Your task to perform on an android device: Open Yahoo.com Image 0: 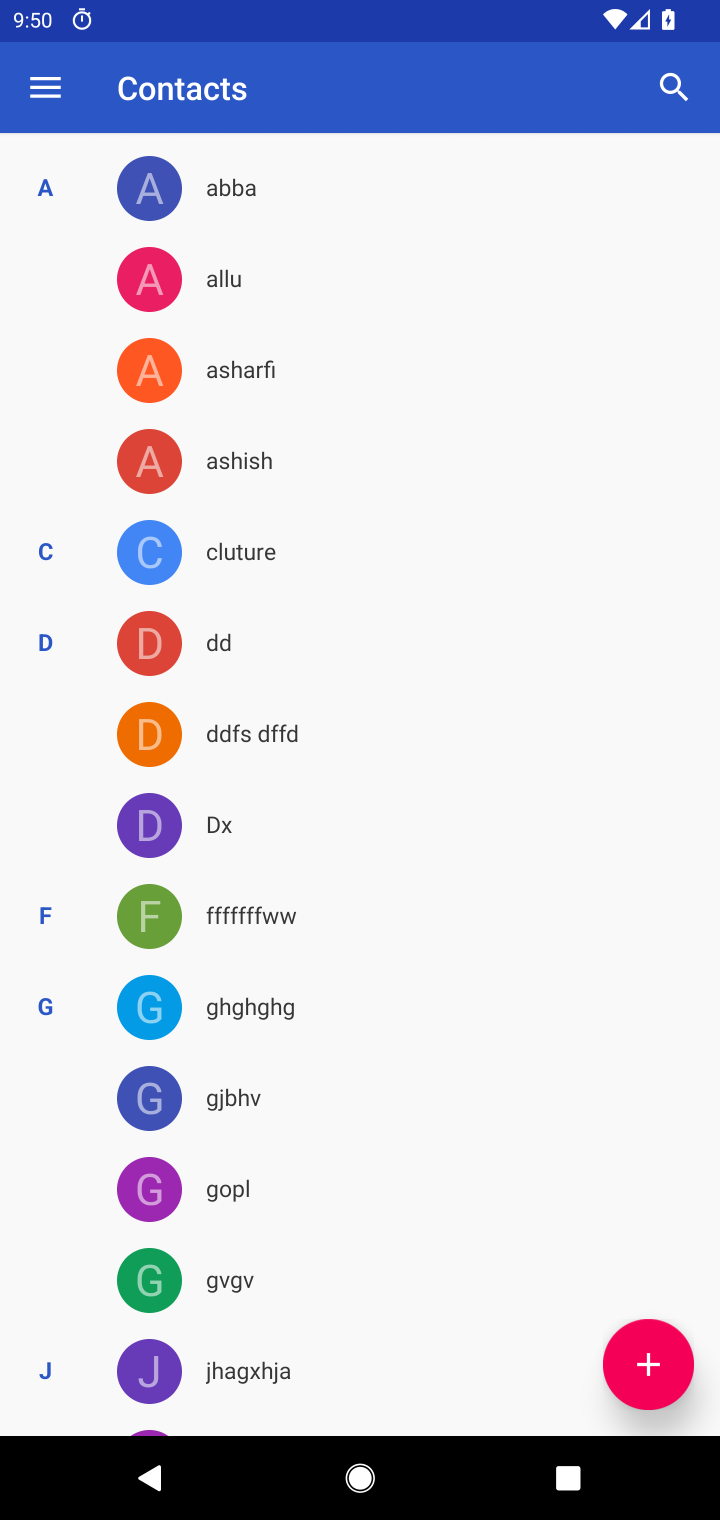
Step 0: press home button
Your task to perform on an android device: Open Yahoo.com Image 1: 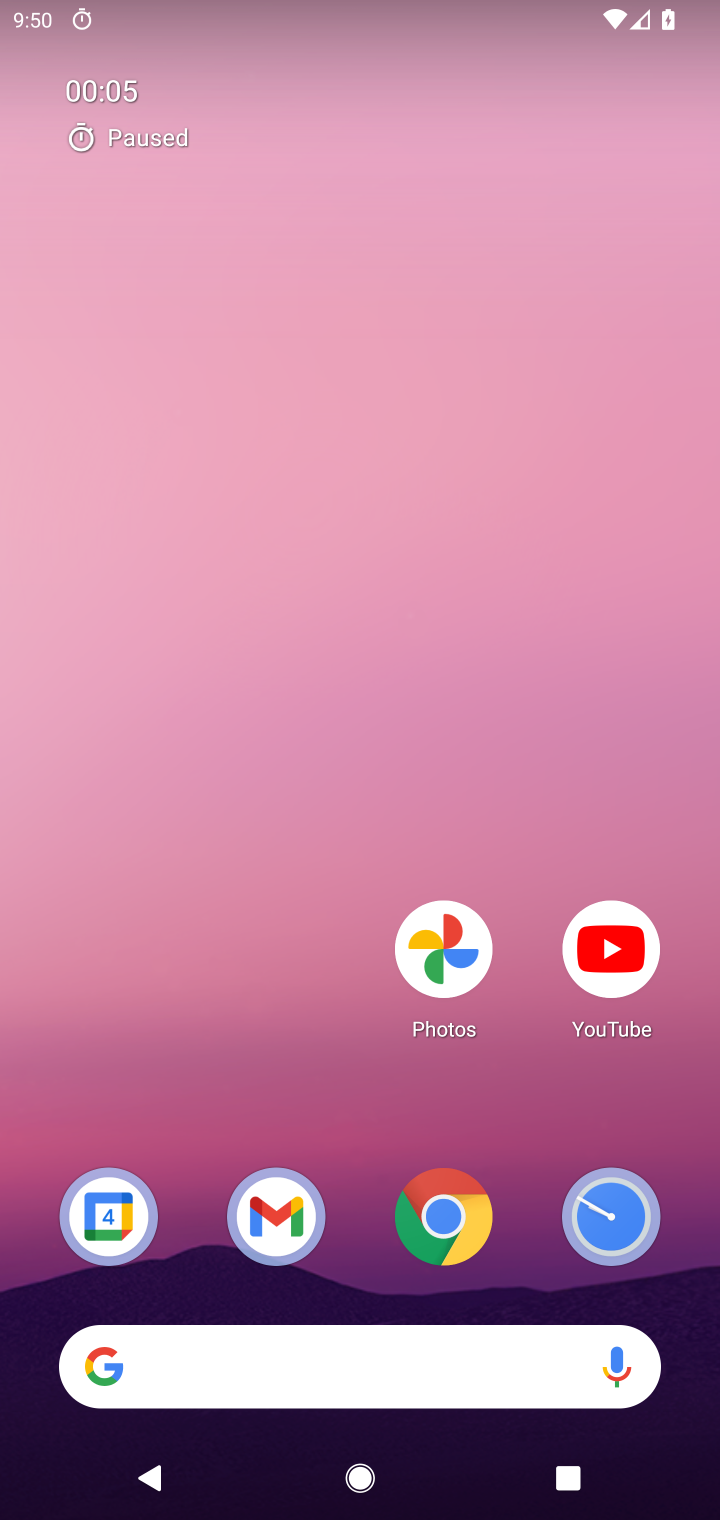
Step 1: drag from (354, 876) to (330, 126)
Your task to perform on an android device: Open Yahoo.com Image 2: 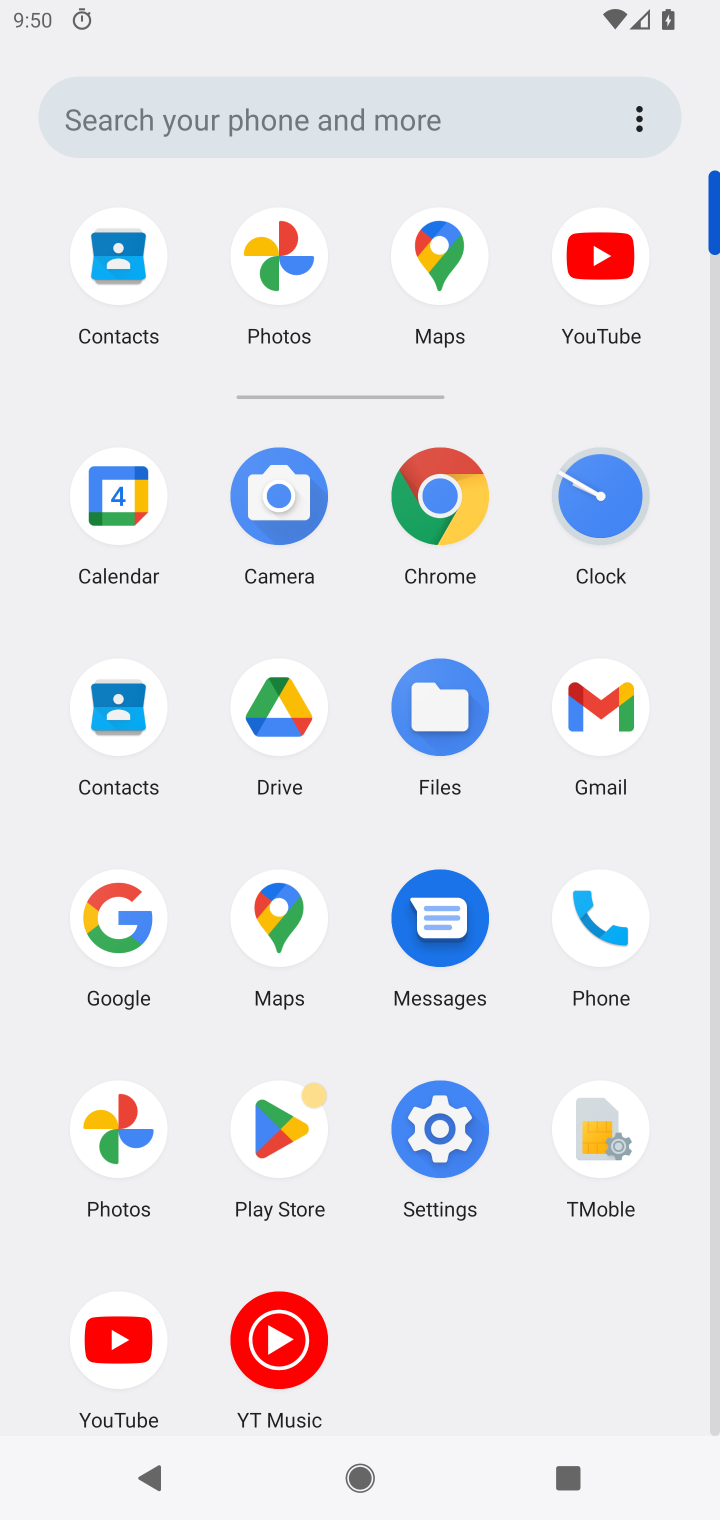
Step 2: click (423, 507)
Your task to perform on an android device: Open Yahoo.com Image 3: 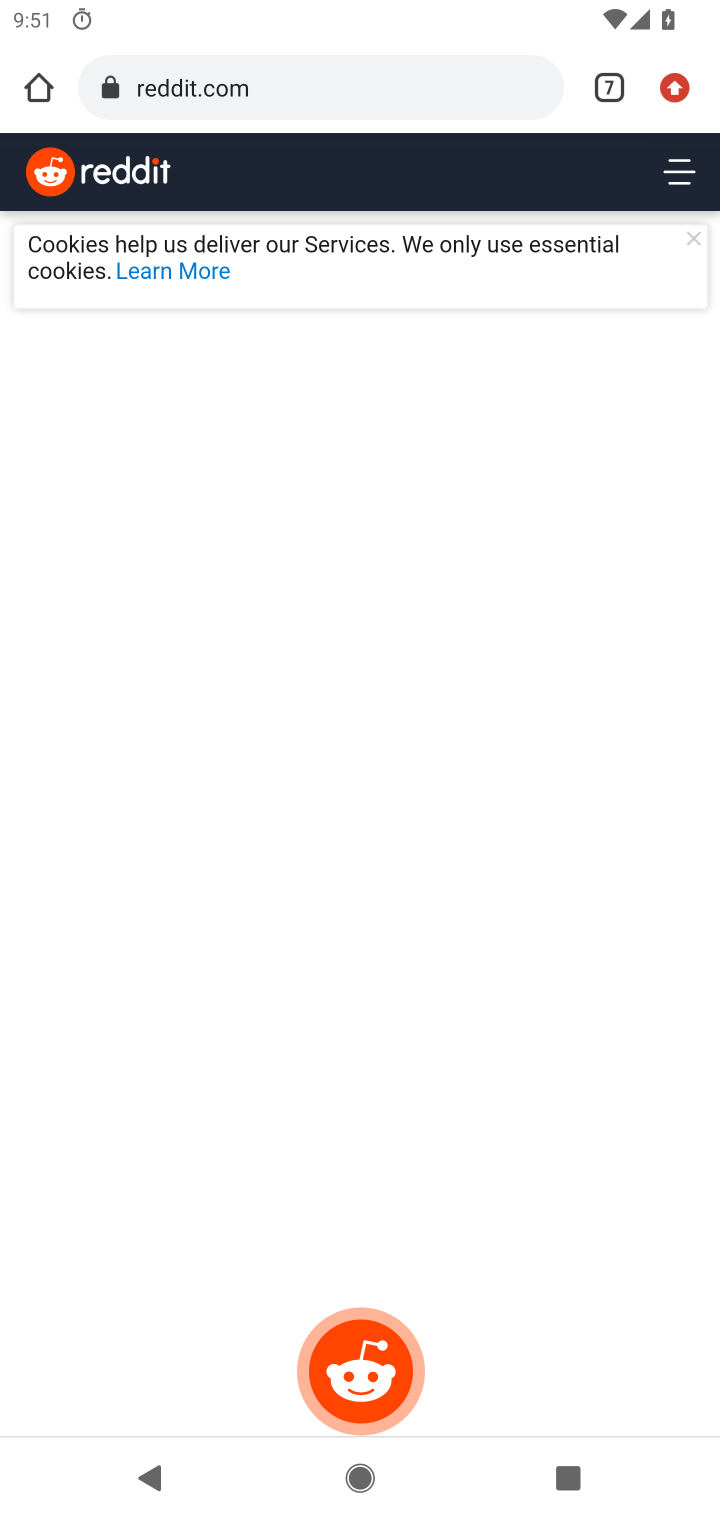
Step 3: click (673, 97)
Your task to perform on an android device: Open Yahoo.com Image 4: 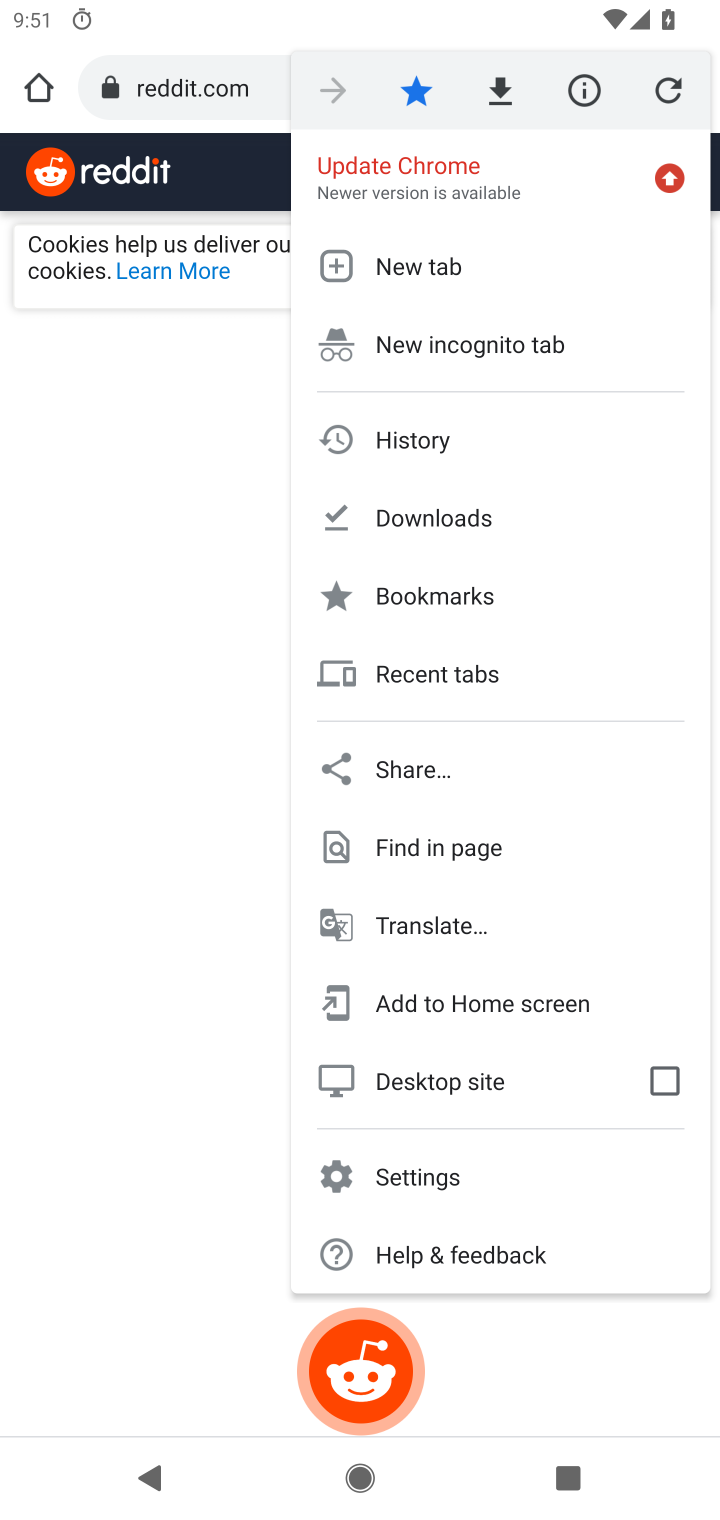
Step 4: click (426, 271)
Your task to perform on an android device: Open Yahoo.com Image 5: 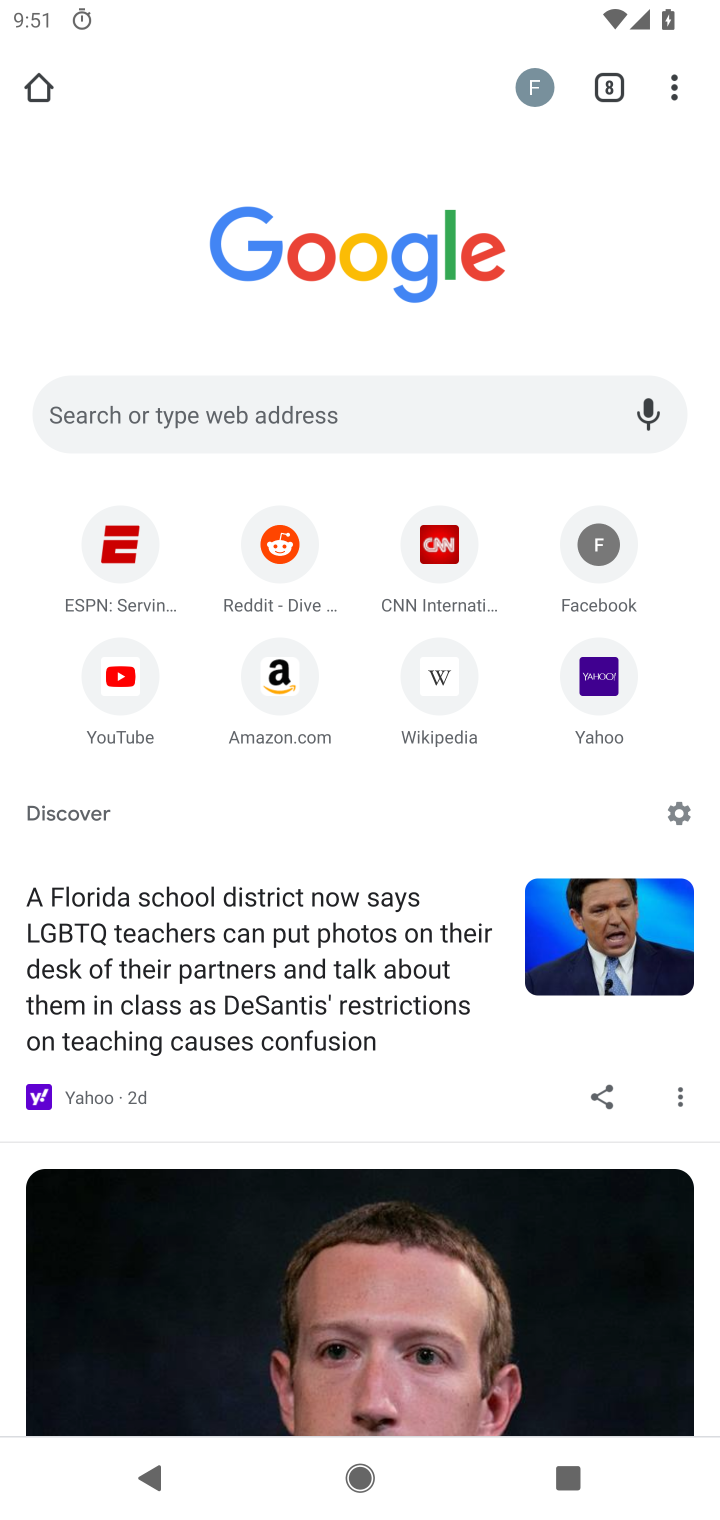
Step 5: click (619, 674)
Your task to perform on an android device: Open Yahoo.com Image 6: 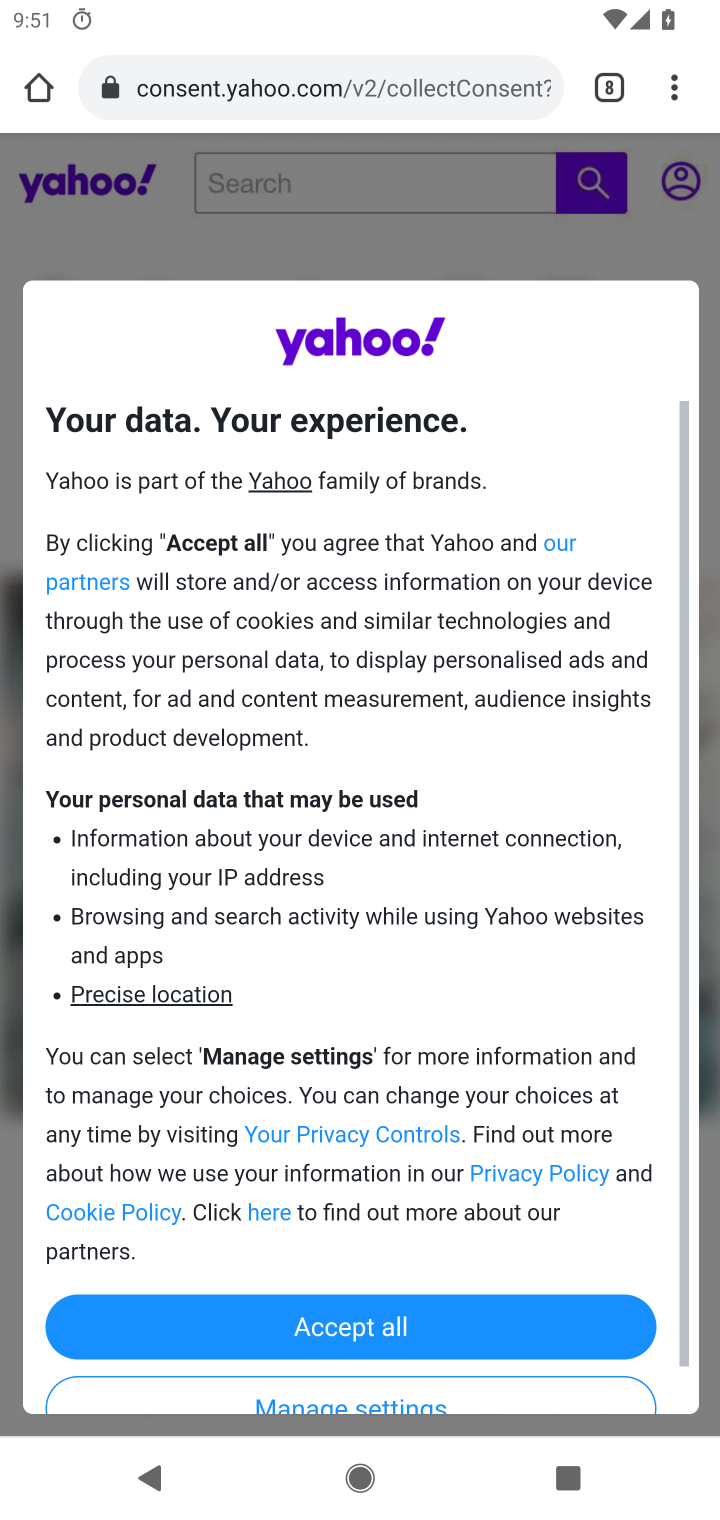
Step 6: task complete